Your task to perform on an android device: Show me the alarms in the clock app Image 0: 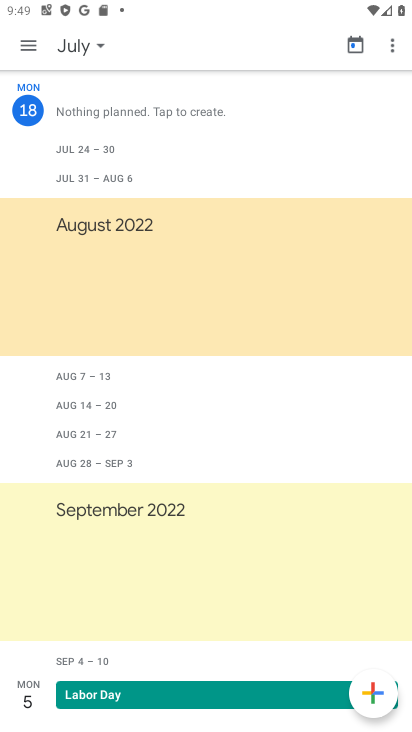
Step 0: press home button
Your task to perform on an android device: Show me the alarms in the clock app Image 1: 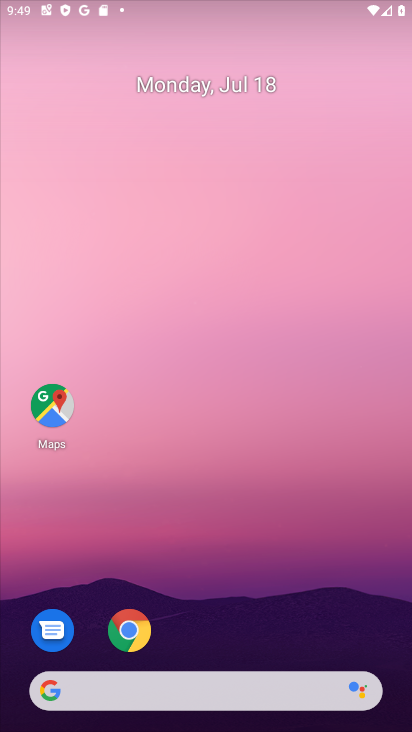
Step 1: drag from (357, 629) to (167, 73)
Your task to perform on an android device: Show me the alarms in the clock app Image 2: 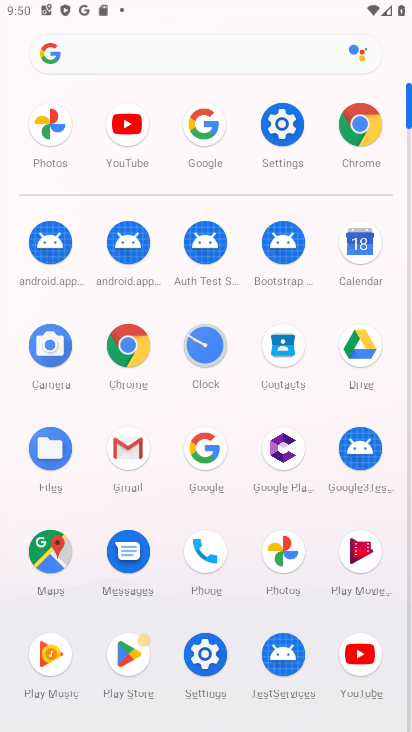
Step 2: click (212, 358)
Your task to perform on an android device: Show me the alarms in the clock app Image 3: 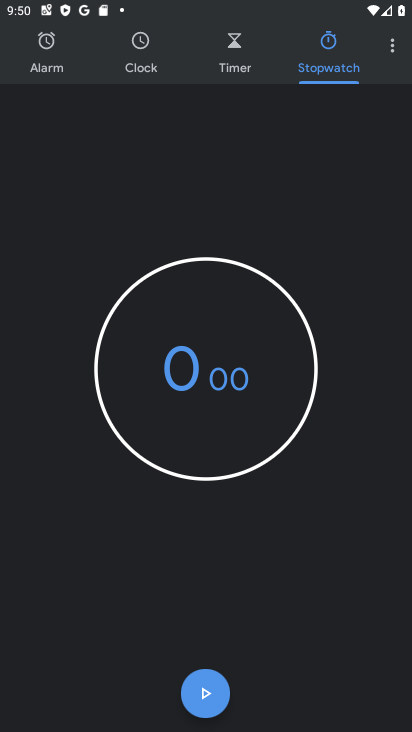
Step 3: click (42, 45)
Your task to perform on an android device: Show me the alarms in the clock app Image 4: 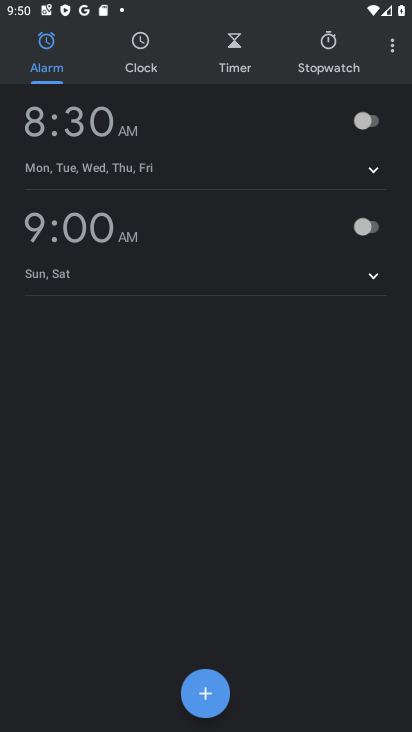
Step 4: task complete